Your task to perform on an android device: Go to accessibility settings Image 0: 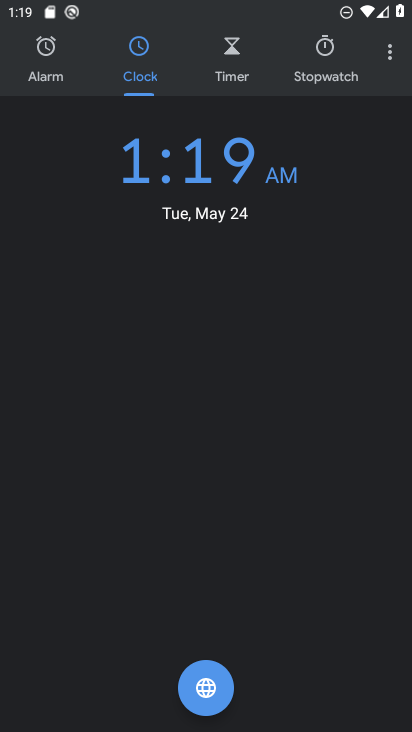
Step 0: press home button
Your task to perform on an android device: Go to accessibility settings Image 1: 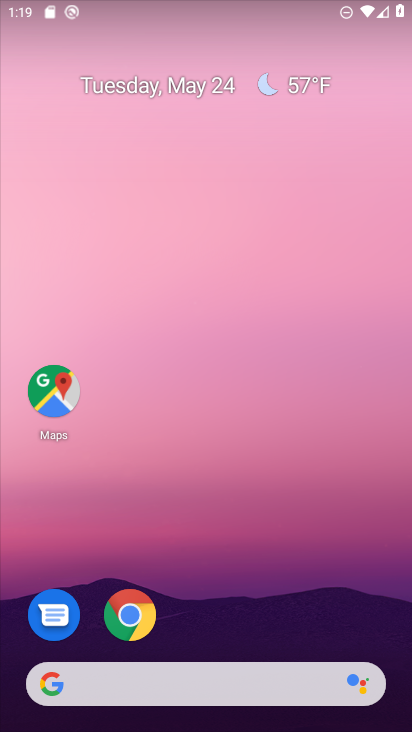
Step 1: drag from (190, 669) to (188, 317)
Your task to perform on an android device: Go to accessibility settings Image 2: 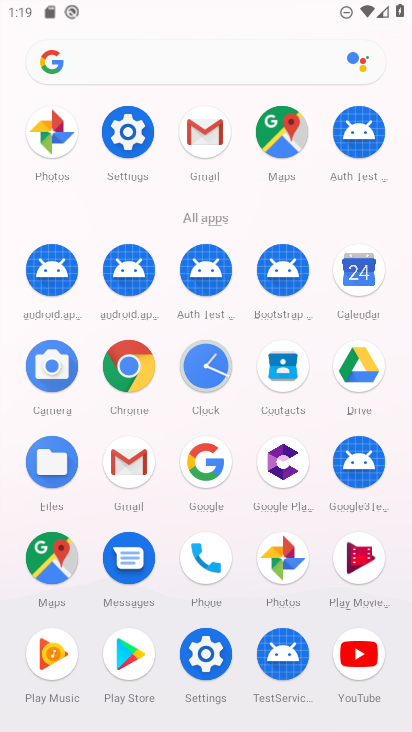
Step 2: click (131, 126)
Your task to perform on an android device: Go to accessibility settings Image 3: 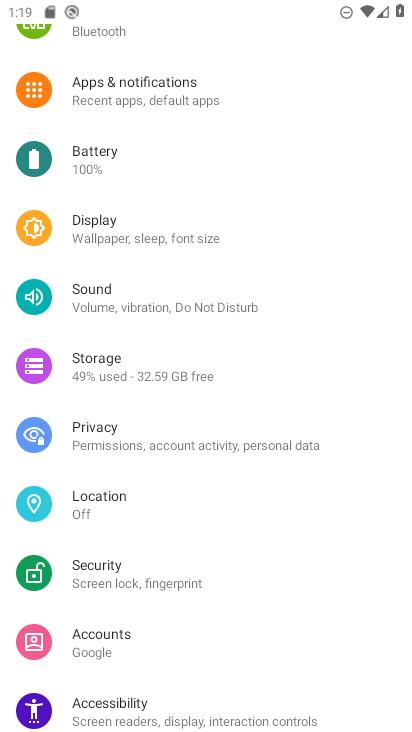
Step 3: drag from (121, 727) to (113, 266)
Your task to perform on an android device: Go to accessibility settings Image 4: 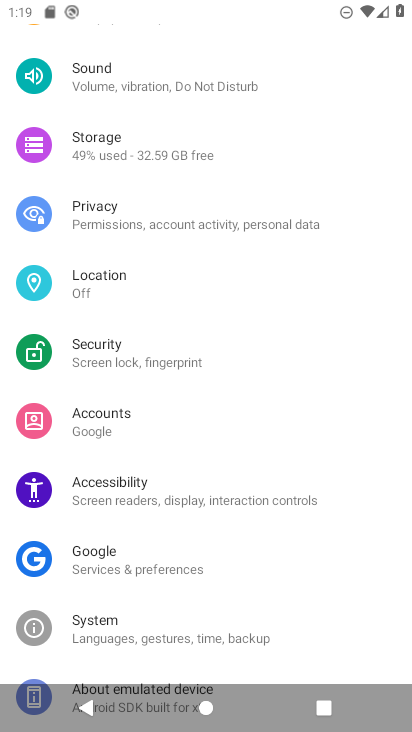
Step 4: click (85, 484)
Your task to perform on an android device: Go to accessibility settings Image 5: 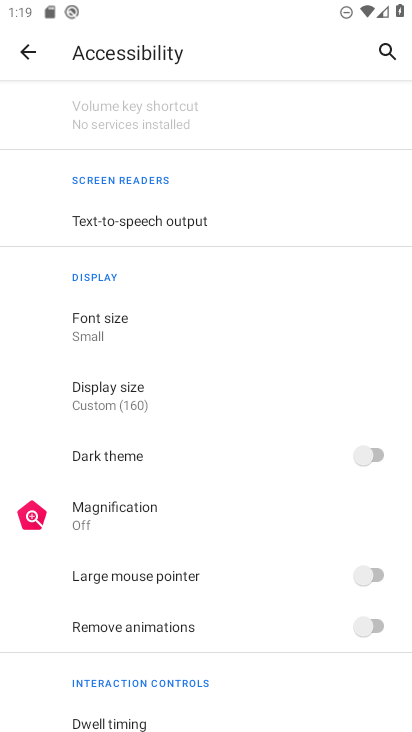
Step 5: task complete